Your task to perform on an android device: Open the stopwatch Image 0: 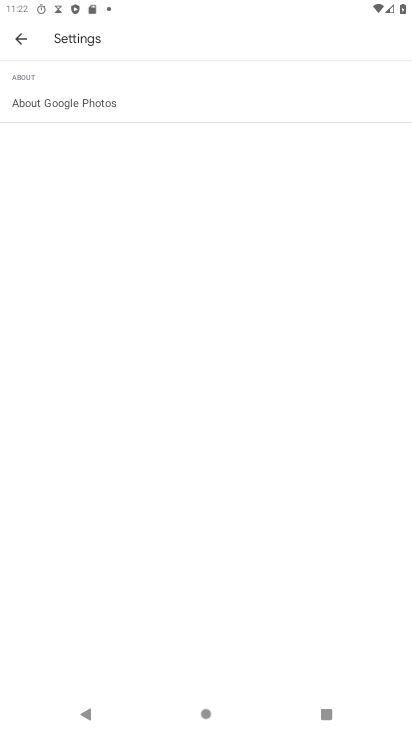
Step 0: press home button
Your task to perform on an android device: Open the stopwatch Image 1: 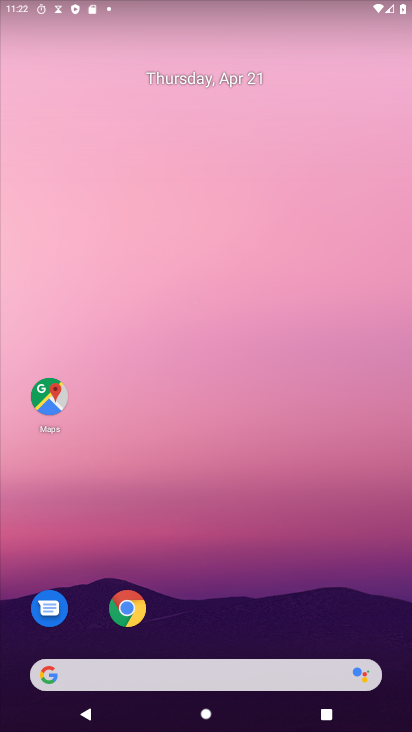
Step 1: drag from (218, 600) to (300, 252)
Your task to perform on an android device: Open the stopwatch Image 2: 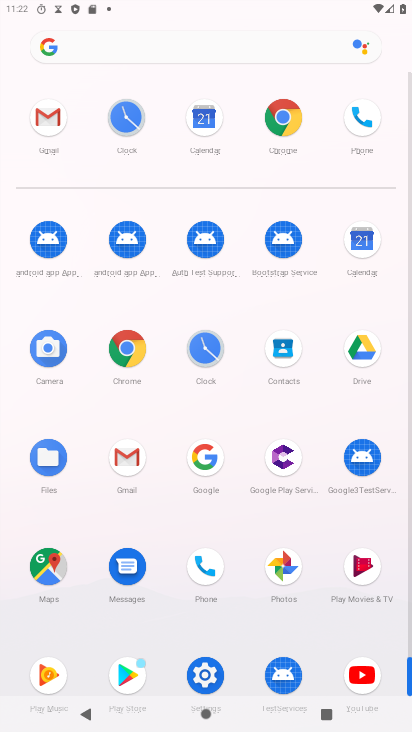
Step 2: click (213, 342)
Your task to perform on an android device: Open the stopwatch Image 3: 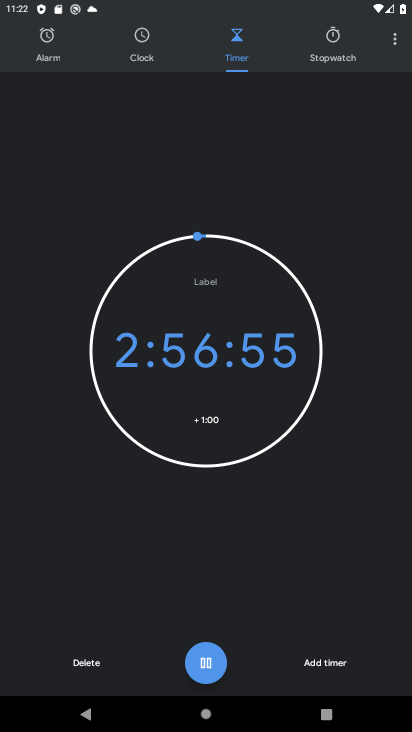
Step 3: click (324, 49)
Your task to perform on an android device: Open the stopwatch Image 4: 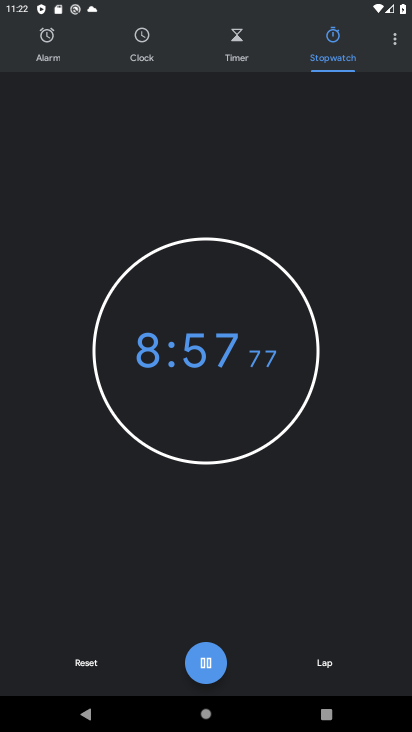
Step 4: task complete